Your task to perform on an android device: Show me popular games on the Play Store Image 0: 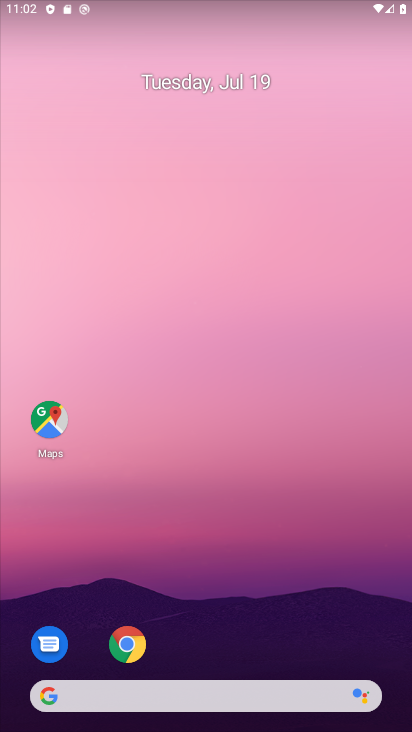
Step 0: press home button
Your task to perform on an android device: Show me popular games on the Play Store Image 1: 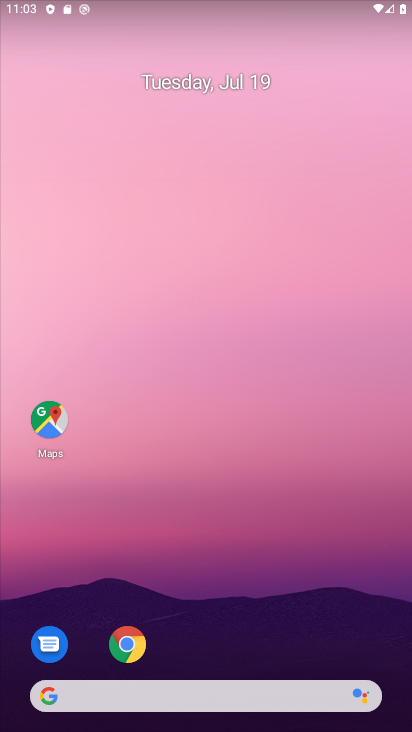
Step 1: drag from (333, 591) to (347, 129)
Your task to perform on an android device: Show me popular games on the Play Store Image 2: 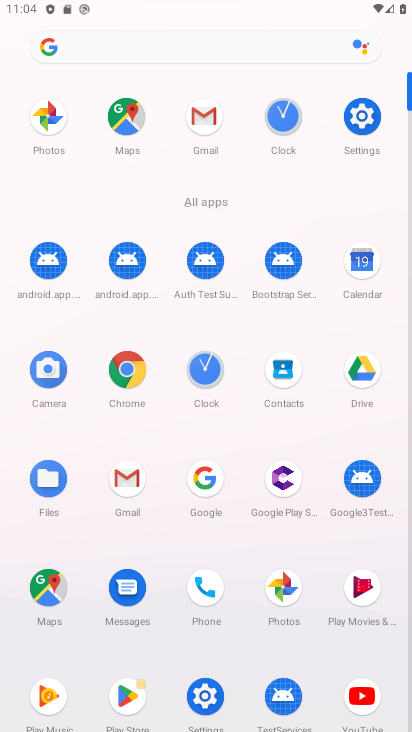
Step 2: click (131, 687)
Your task to perform on an android device: Show me popular games on the Play Store Image 3: 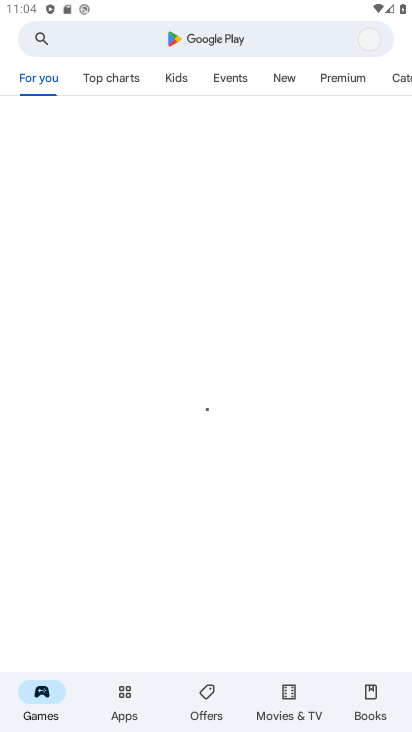
Step 3: click (171, 44)
Your task to perform on an android device: Show me popular games on the Play Store Image 4: 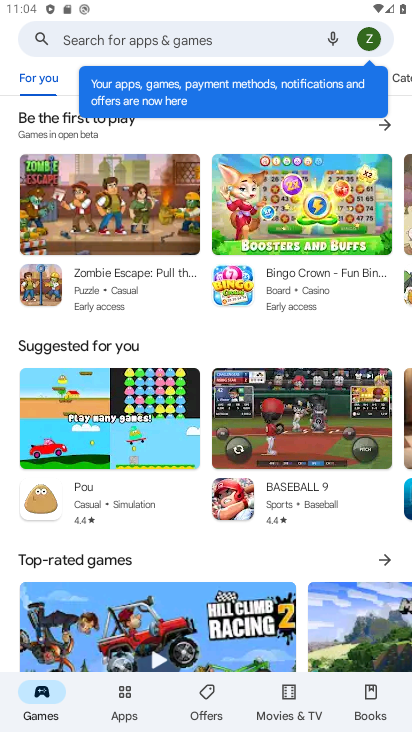
Step 4: click (80, 44)
Your task to perform on an android device: Show me popular games on the Play Store Image 5: 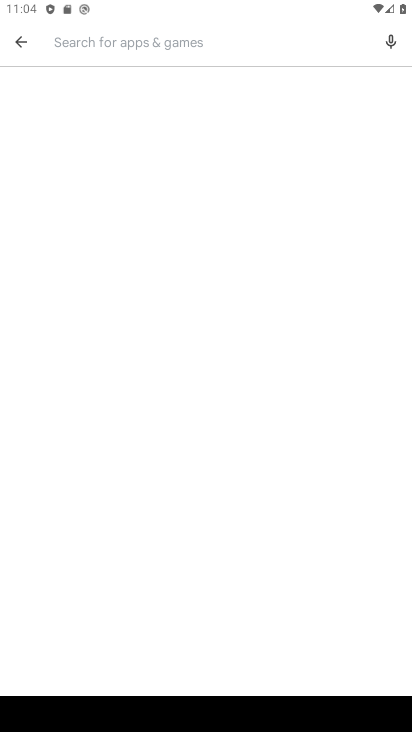
Step 5: type "popular games"
Your task to perform on an android device: Show me popular games on the Play Store Image 6: 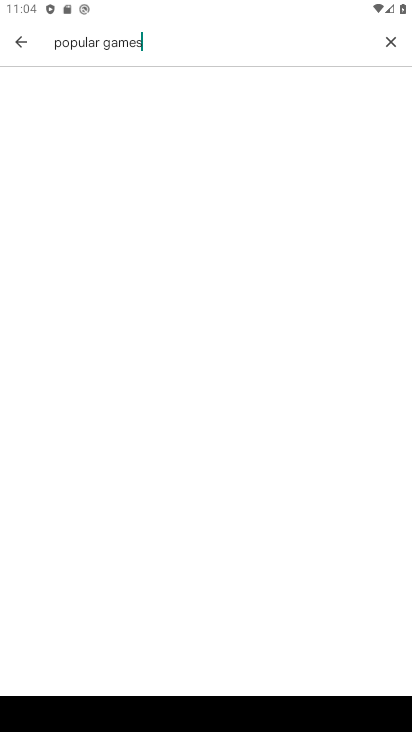
Step 6: type ""
Your task to perform on an android device: Show me popular games on the Play Store Image 7: 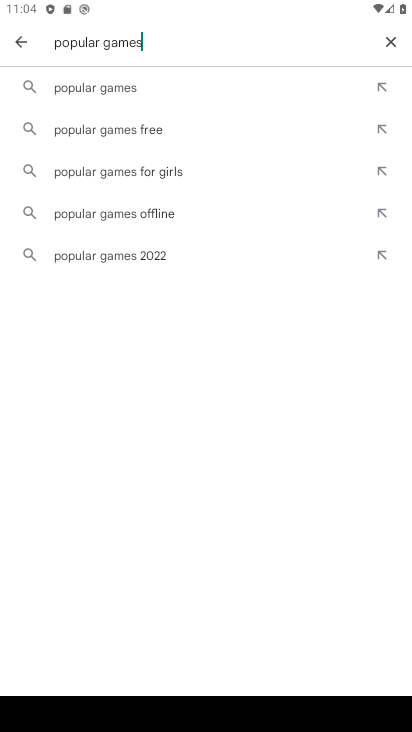
Step 7: click (94, 95)
Your task to perform on an android device: Show me popular games on the Play Store Image 8: 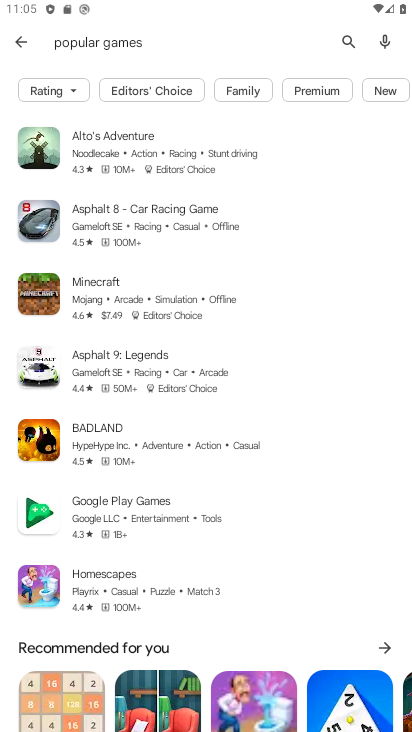
Step 8: task complete